Your task to perform on an android device: snooze an email in the gmail app Image 0: 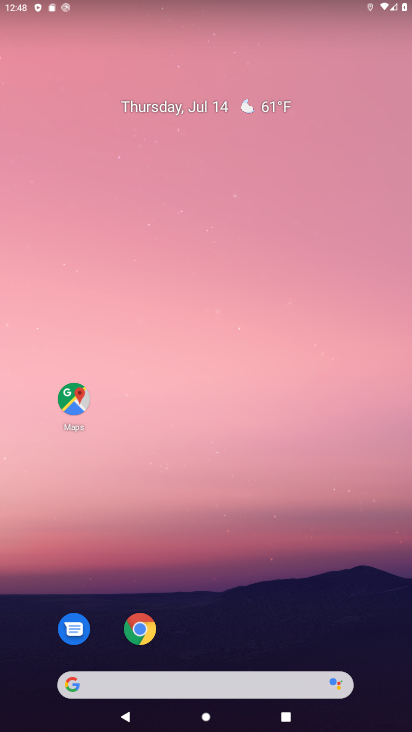
Step 0: drag from (233, 636) to (235, 136)
Your task to perform on an android device: snooze an email in the gmail app Image 1: 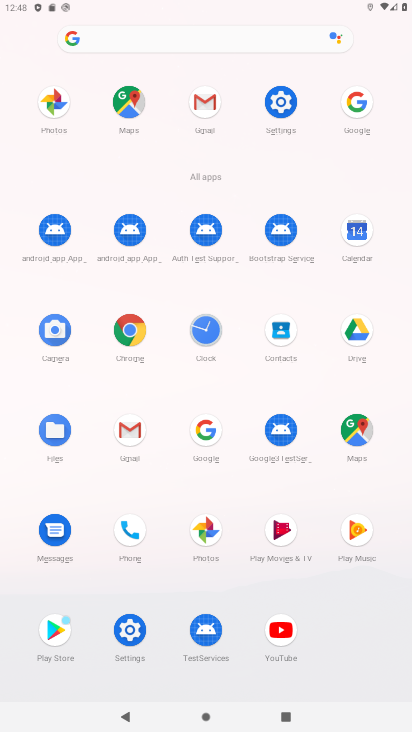
Step 1: click (199, 104)
Your task to perform on an android device: snooze an email in the gmail app Image 2: 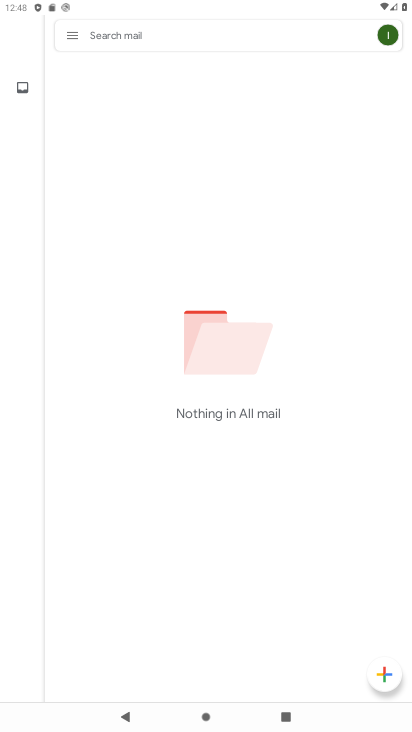
Step 2: task complete